Your task to perform on an android device: open chrome and create a bookmark for the current page Image 0: 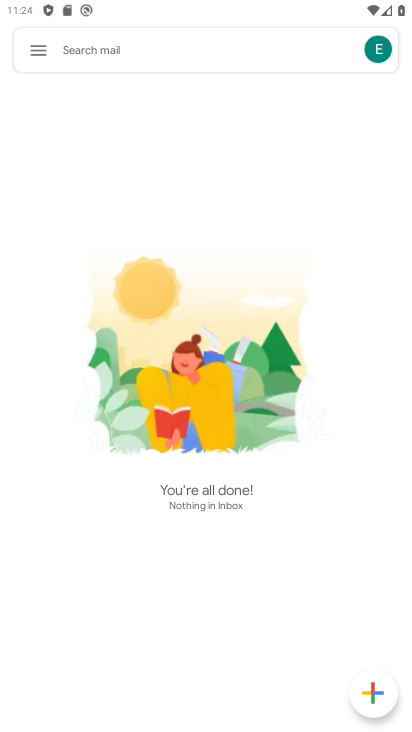
Step 0: press home button
Your task to perform on an android device: open chrome and create a bookmark for the current page Image 1: 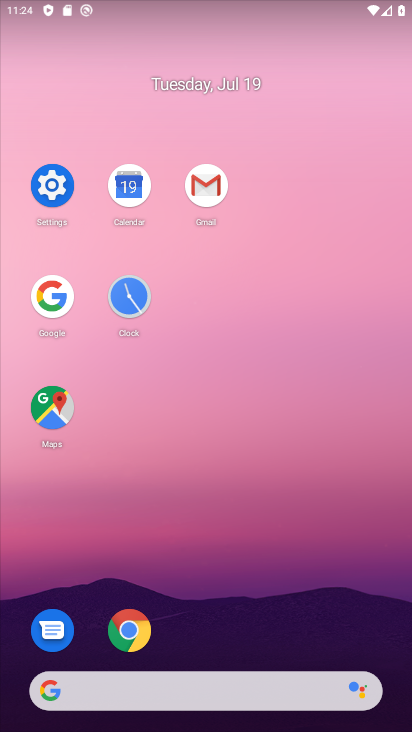
Step 1: click (138, 618)
Your task to perform on an android device: open chrome and create a bookmark for the current page Image 2: 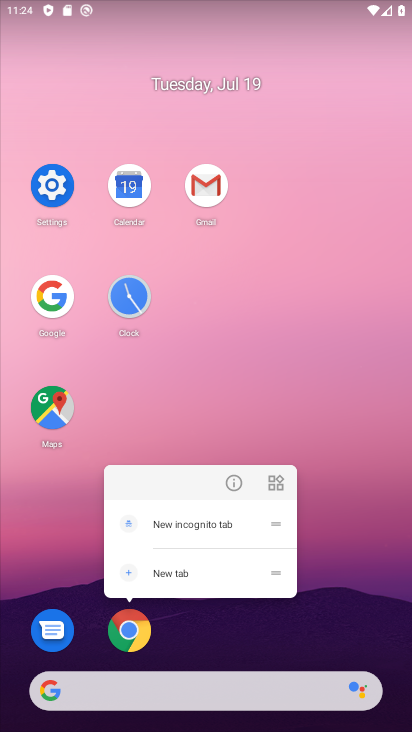
Step 2: click (143, 629)
Your task to perform on an android device: open chrome and create a bookmark for the current page Image 3: 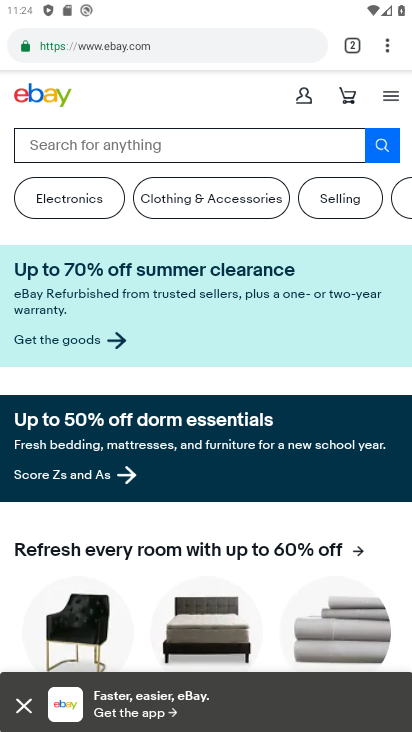
Step 3: click (393, 37)
Your task to perform on an android device: open chrome and create a bookmark for the current page Image 4: 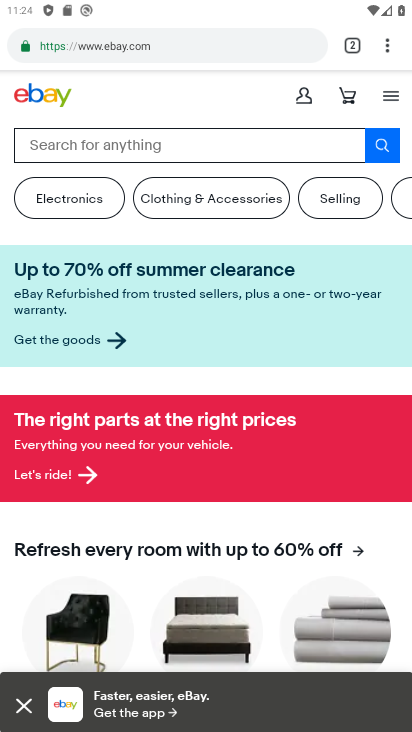
Step 4: click (389, 45)
Your task to perform on an android device: open chrome and create a bookmark for the current page Image 5: 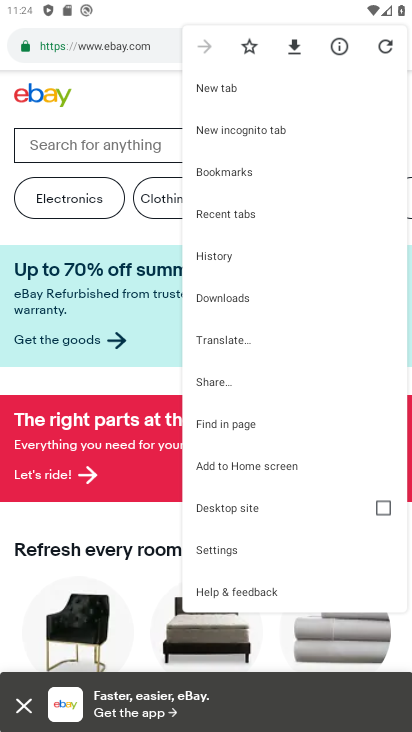
Step 5: click (252, 50)
Your task to perform on an android device: open chrome and create a bookmark for the current page Image 6: 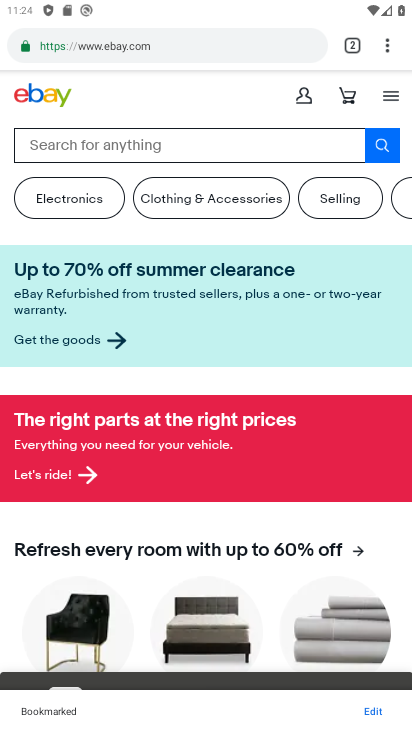
Step 6: task complete